Your task to perform on an android device: turn off improve location accuracy Image 0: 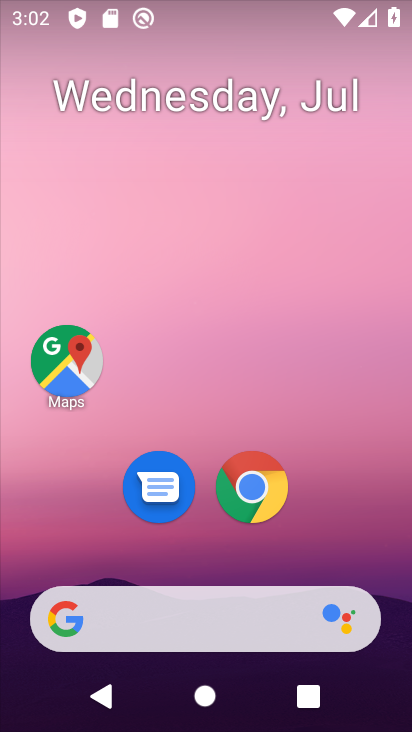
Step 0: drag from (204, 534) to (250, 77)
Your task to perform on an android device: turn off improve location accuracy Image 1: 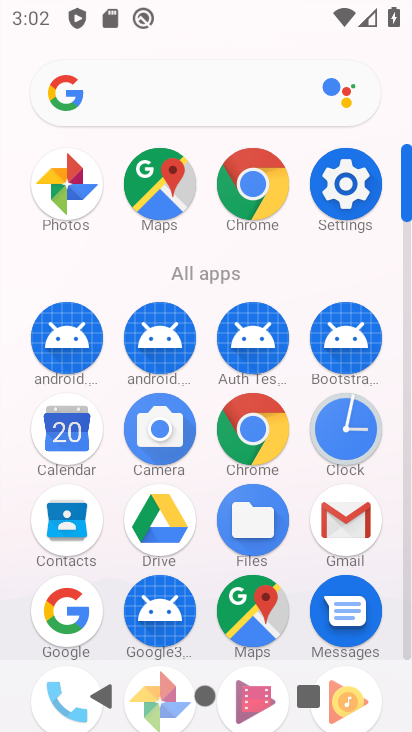
Step 1: click (347, 193)
Your task to perform on an android device: turn off improve location accuracy Image 2: 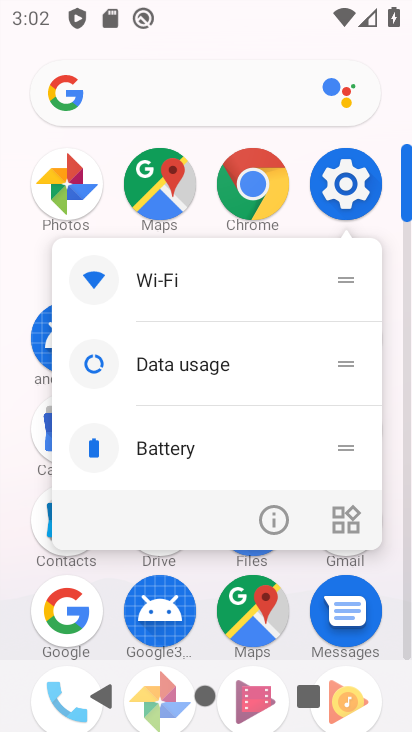
Step 2: click (347, 193)
Your task to perform on an android device: turn off improve location accuracy Image 3: 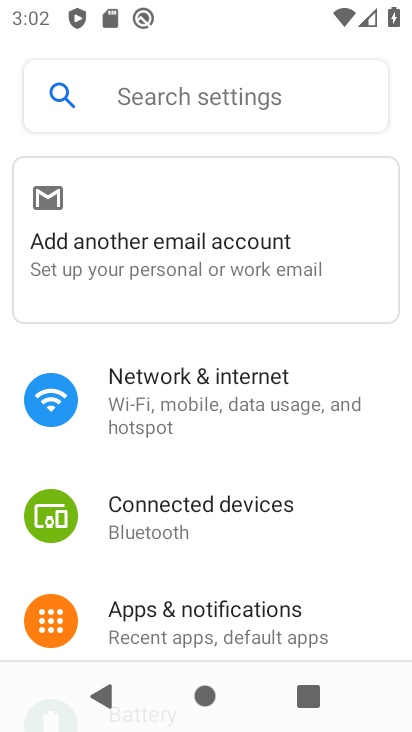
Step 3: drag from (215, 620) to (254, 240)
Your task to perform on an android device: turn off improve location accuracy Image 4: 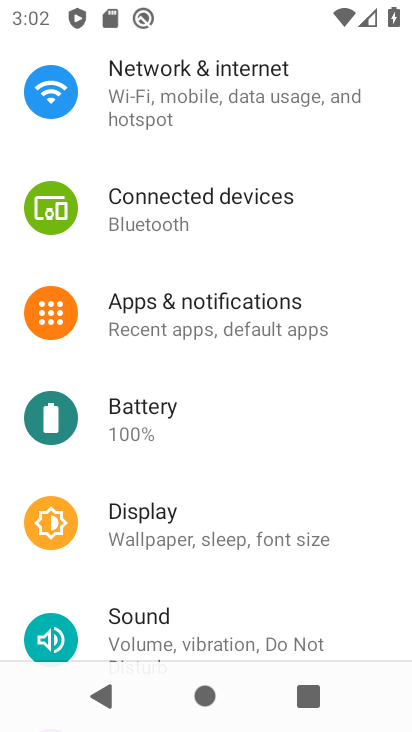
Step 4: drag from (184, 561) to (245, 48)
Your task to perform on an android device: turn off improve location accuracy Image 5: 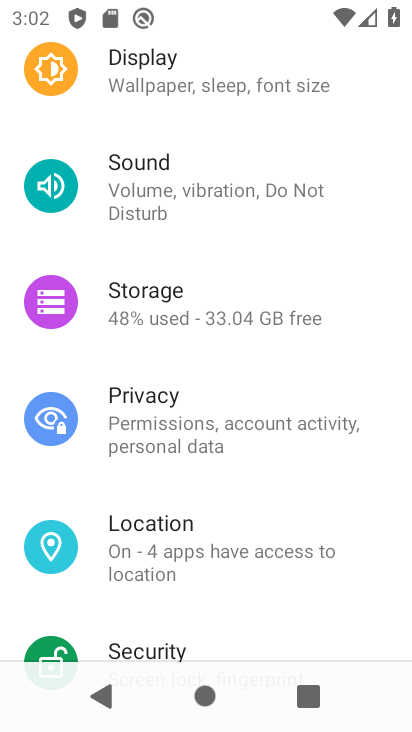
Step 5: click (167, 548)
Your task to perform on an android device: turn off improve location accuracy Image 6: 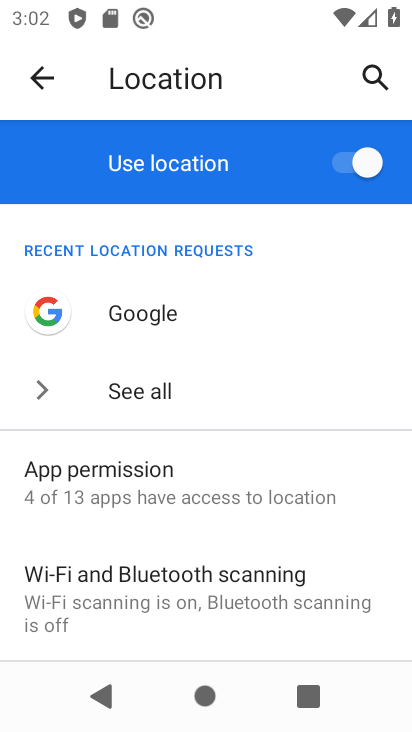
Step 6: drag from (135, 596) to (242, 166)
Your task to perform on an android device: turn off improve location accuracy Image 7: 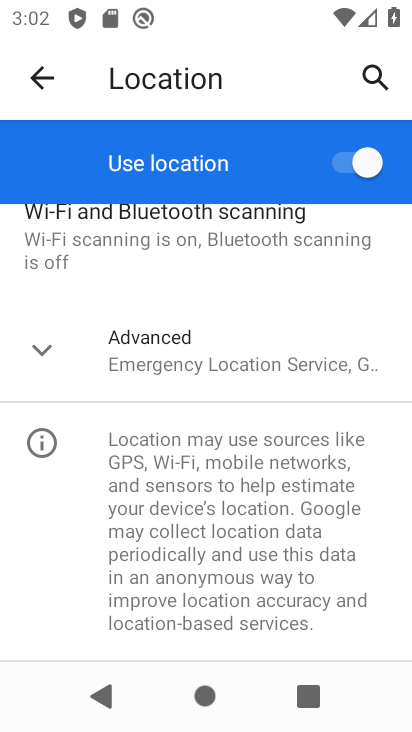
Step 7: click (206, 343)
Your task to perform on an android device: turn off improve location accuracy Image 8: 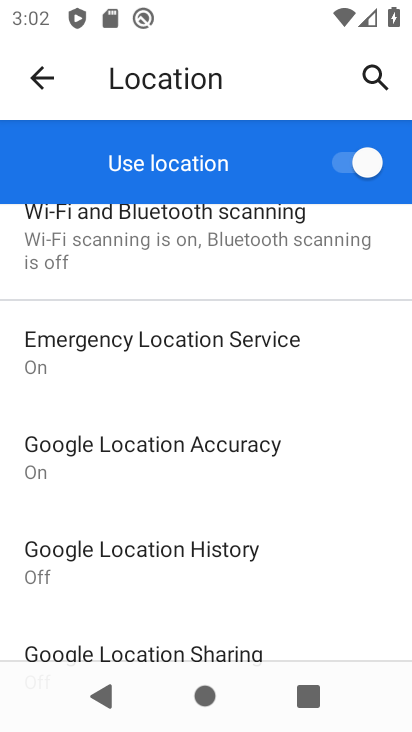
Step 8: click (157, 448)
Your task to perform on an android device: turn off improve location accuracy Image 9: 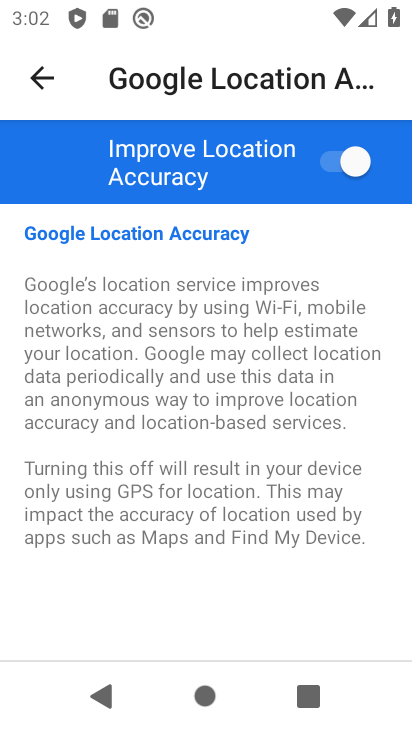
Step 9: click (350, 160)
Your task to perform on an android device: turn off improve location accuracy Image 10: 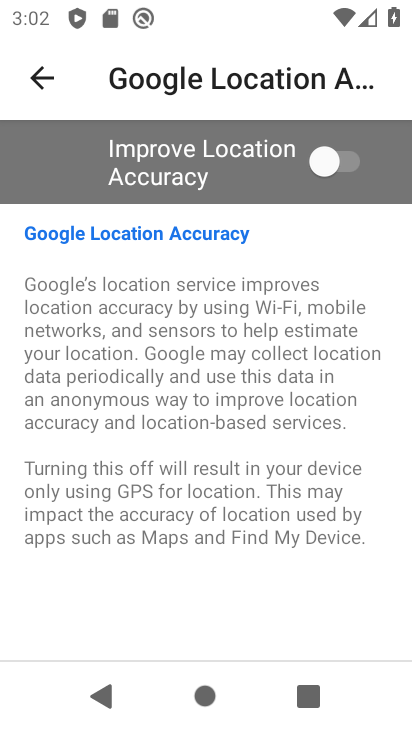
Step 10: task complete